Your task to perform on an android device: See recent photos Image 0: 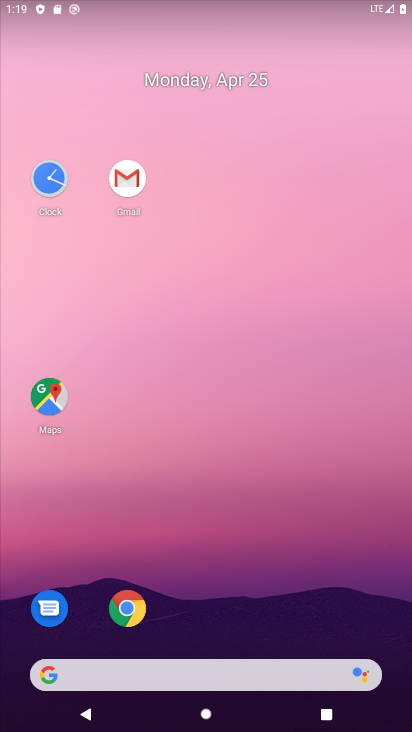
Step 0: drag from (194, 647) to (216, 143)
Your task to perform on an android device: See recent photos Image 1: 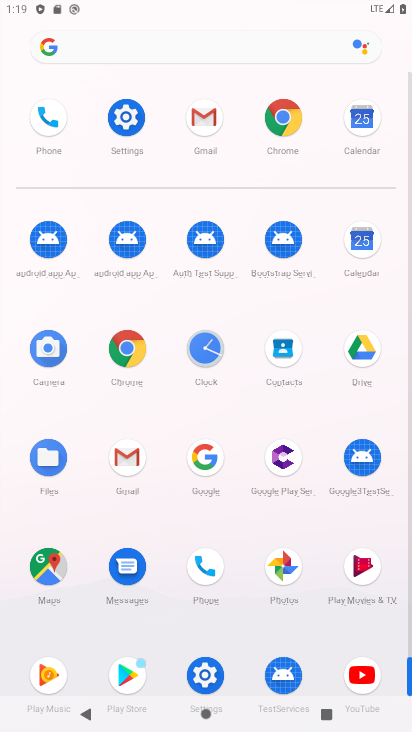
Step 1: drag from (275, 571) to (231, 241)
Your task to perform on an android device: See recent photos Image 2: 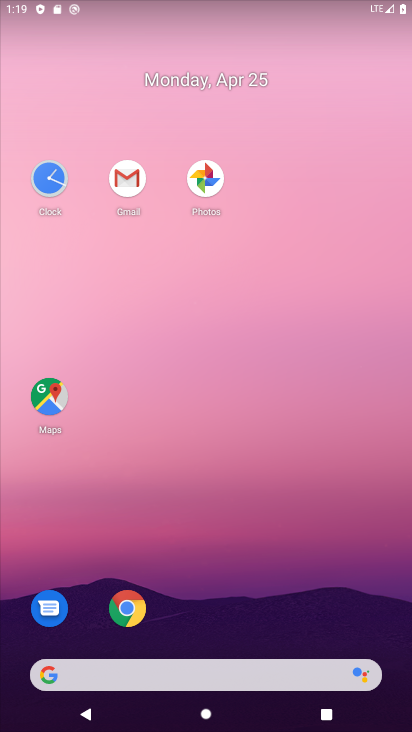
Step 2: click (196, 175)
Your task to perform on an android device: See recent photos Image 3: 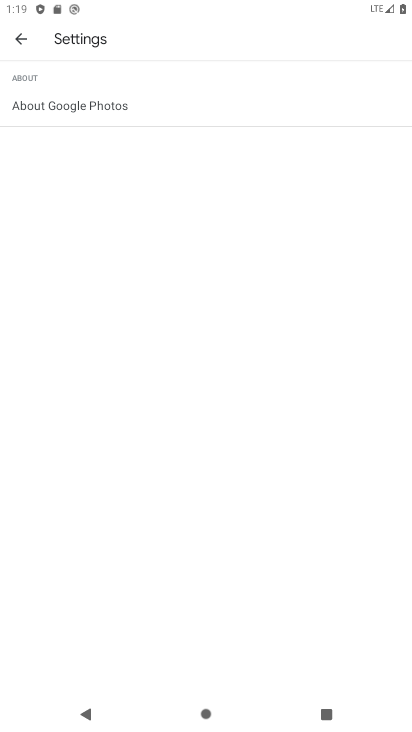
Step 3: click (18, 44)
Your task to perform on an android device: See recent photos Image 4: 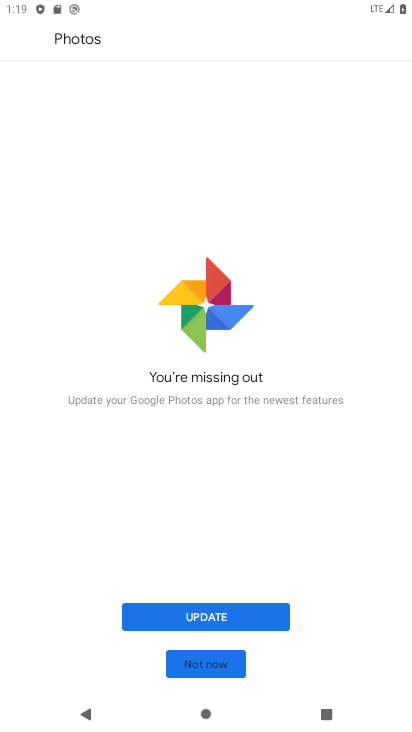
Step 4: click (231, 653)
Your task to perform on an android device: See recent photos Image 5: 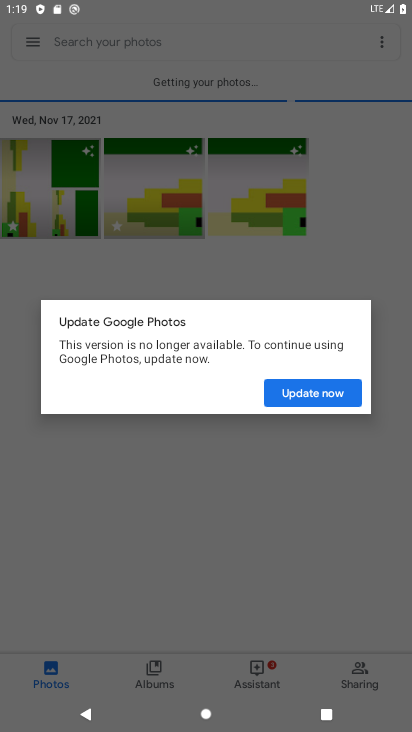
Step 5: click (313, 390)
Your task to perform on an android device: See recent photos Image 6: 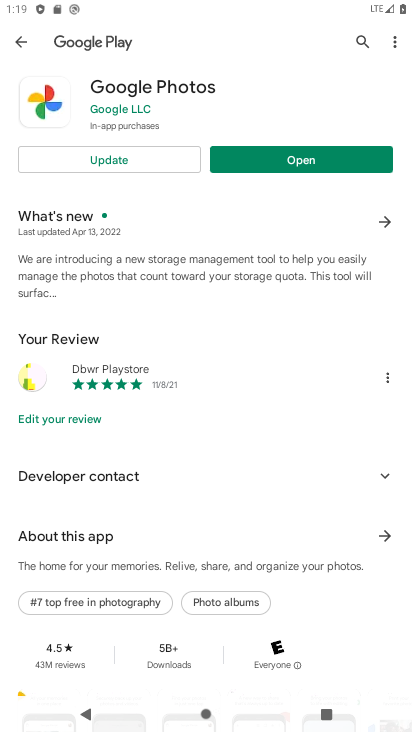
Step 6: click (341, 153)
Your task to perform on an android device: See recent photos Image 7: 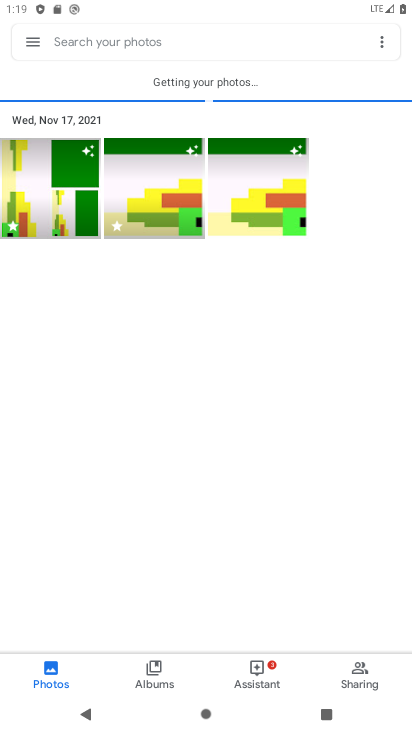
Step 7: task complete